Your task to perform on an android device: Set the phone to "Do not disturb". Image 0: 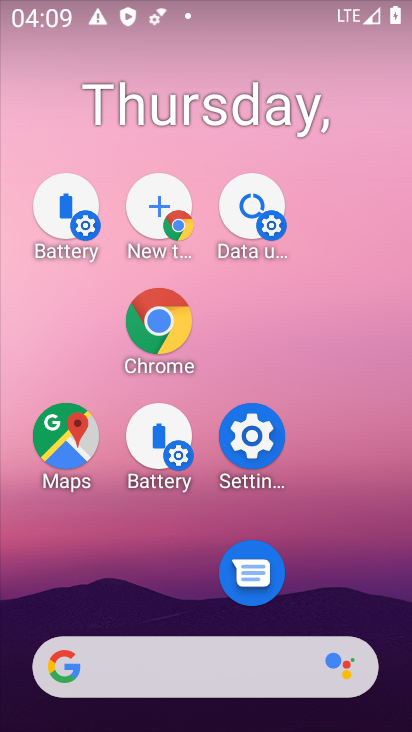
Step 0: press back button
Your task to perform on an android device: Set the phone to "Do not disturb". Image 1: 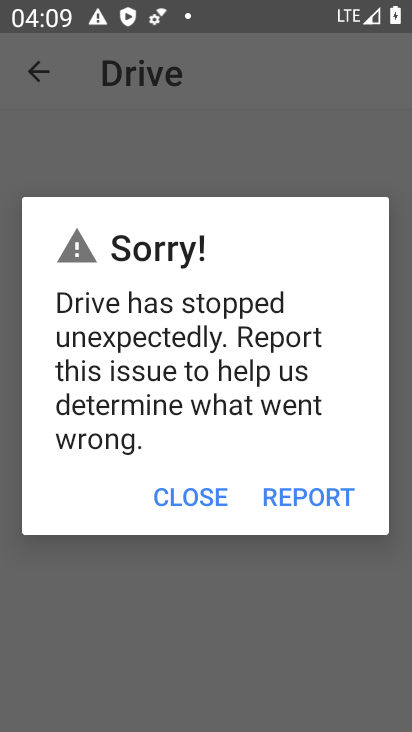
Step 1: press home button
Your task to perform on an android device: Set the phone to "Do not disturb". Image 2: 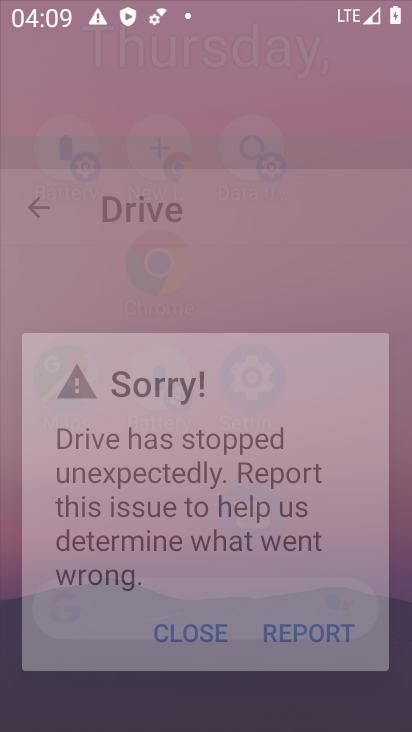
Step 2: click (185, 496)
Your task to perform on an android device: Set the phone to "Do not disturb". Image 3: 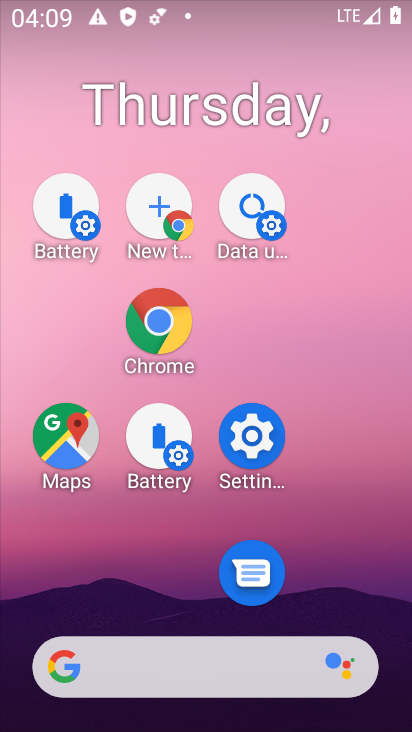
Step 3: drag from (244, 561) to (203, 69)
Your task to perform on an android device: Set the phone to "Do not disturb". Image 4: 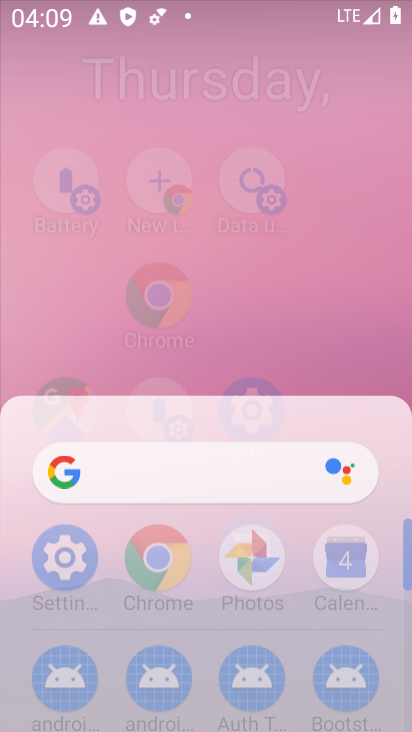
Step 4: drag from (229, 467) to (229, 103)
Your task to perform on an android device: Set the phone to "Do not disturb". Image 5: 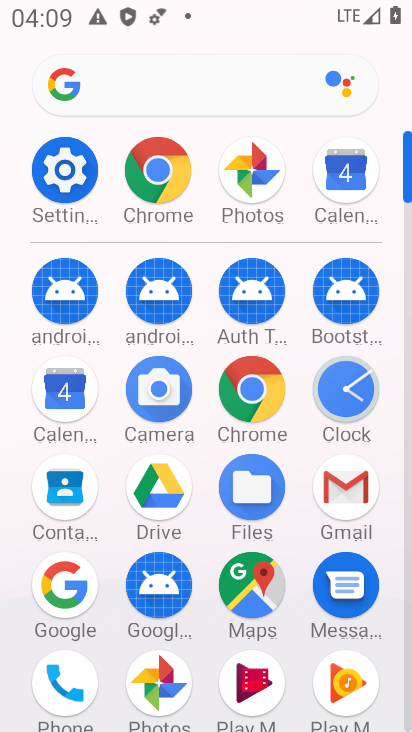
Step 5: drag from (306, 529) to (306, 168)
Your task to perform on an android device: Set the phone to "Do not disturb". Image 6: 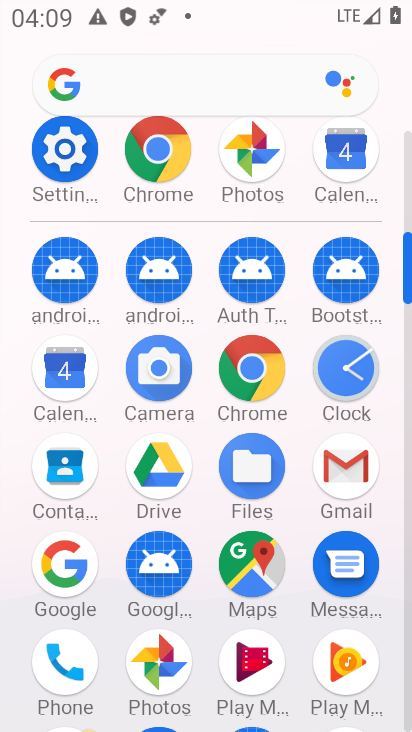
Step 6: click (60, 157)
Your task to perform on an android device: Set the phone to "Do not disturb". Image 7: 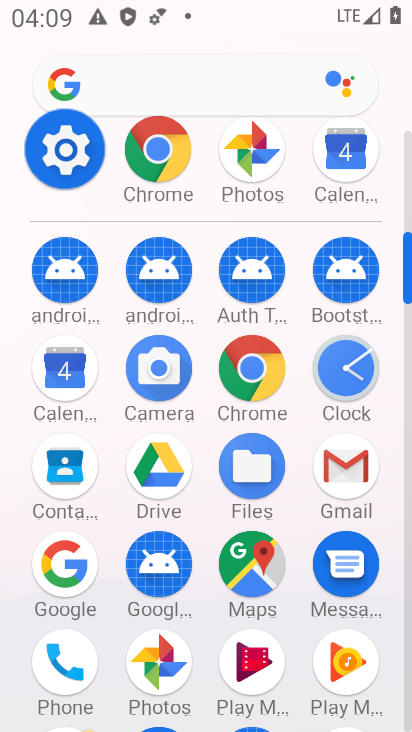
Step 7: click (60, 157)
Your task to perform on an android device: Set the phone to "Do not disturb". Image 8: 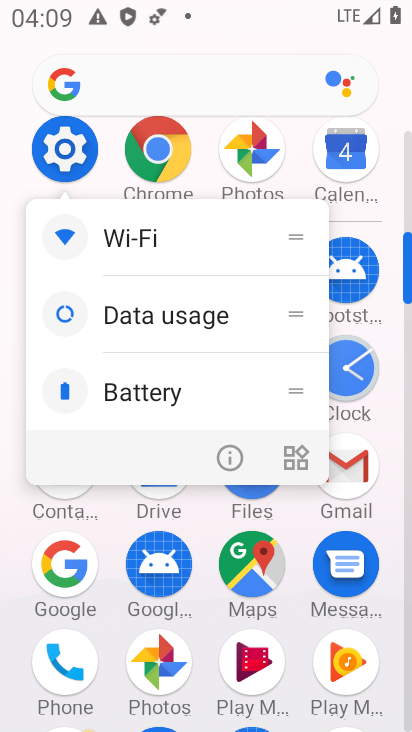
Step 8: click (62, 154)
Your task to perform on an android device: Set the phone to "Do not disturb". Image 9: 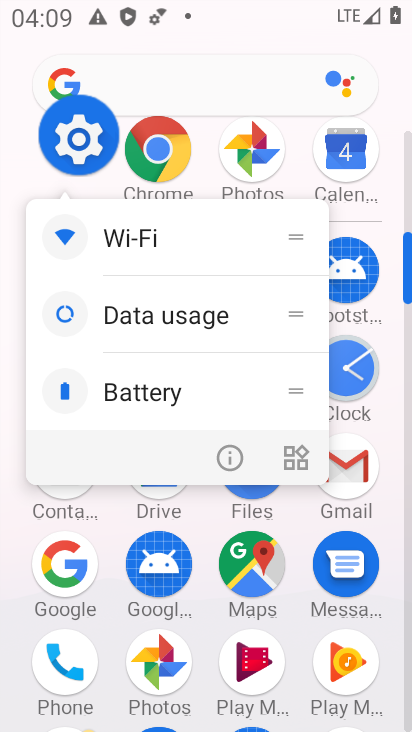
Step 9: click (70, 138)
Your task to perform on an android device: Set the phone to "Do not disturb". Image 10: 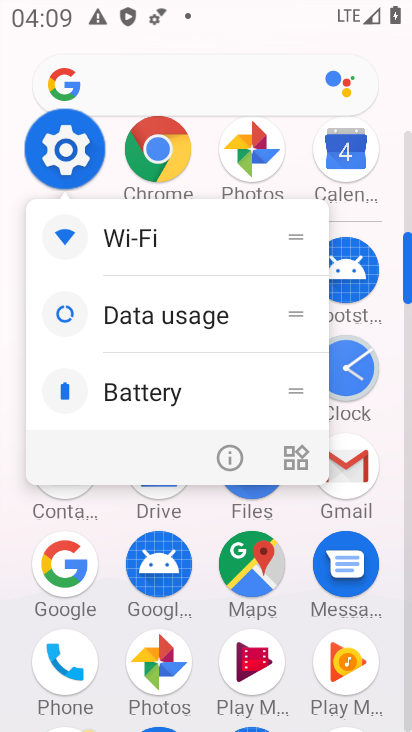
Step 10: click (70, 138)
Your task to perform on an android device: Set the phone to "Do not disturb". Image 11: 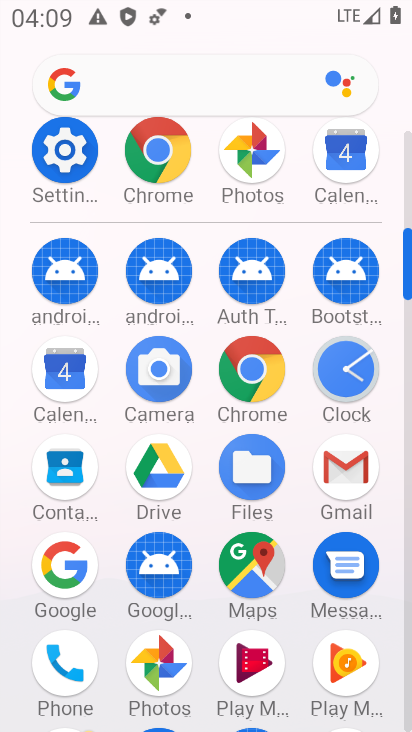
Step 11: click (67, 152)
Your task to perform on an android device: Set the phone to "Do not disturb". Image 12: 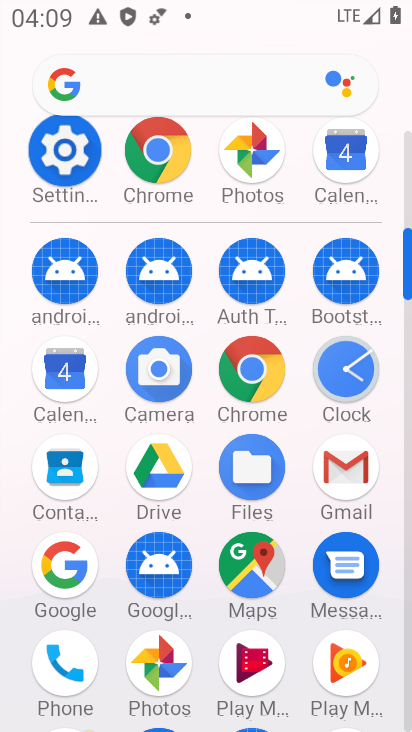
Step 12: click (61, 160)
Your task to perform on an android device: Set the phone to "Do not disturb". Image 13: 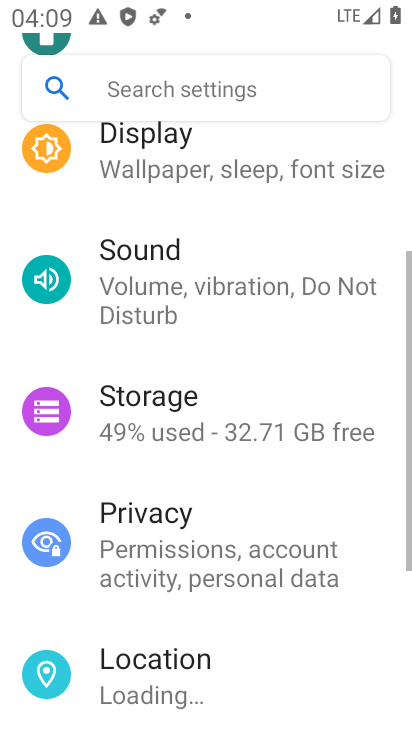
Step 13: click (60, 161)
Your task to perform on an android device: Set the phone to "Do not disturb". Image 14: 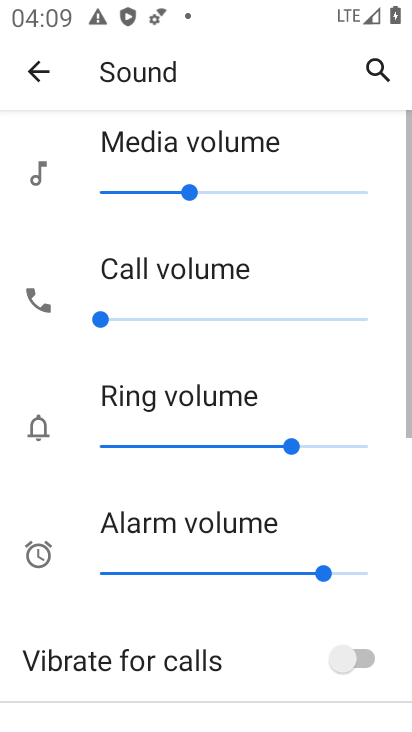
Step 14: click (33, 72)
Your task to perform on an android device: Set the phone to "Do not disturb". Image 15: 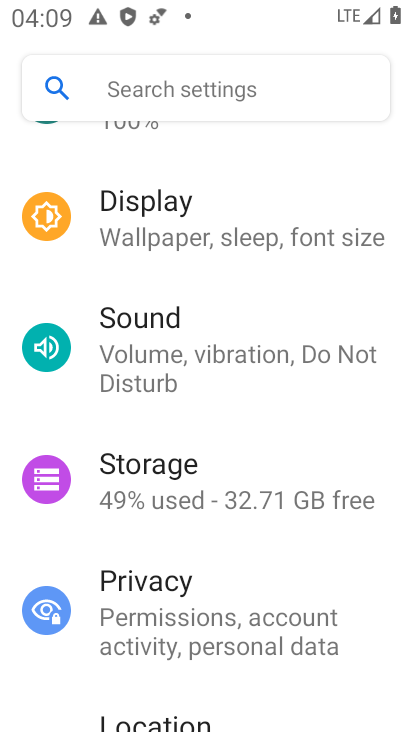
Step 15: click (135, 345)
Your task to perform on an android device: Set the phone to "Do not disturb". Image 16: 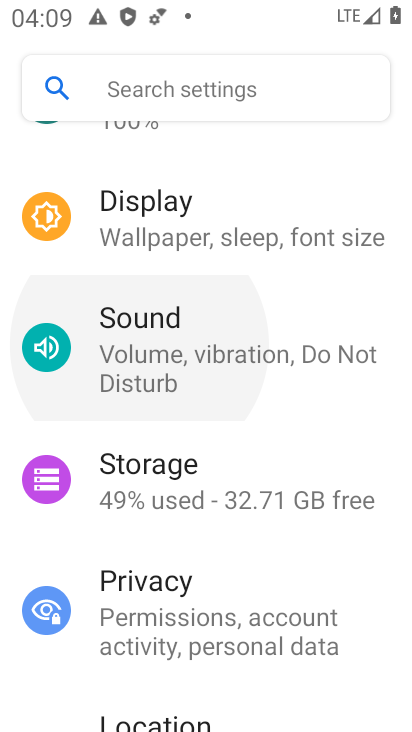
Step 16: click (143, 346)
Your task to perform on an android device: Set the phone to "Do not disturb". Image 17: 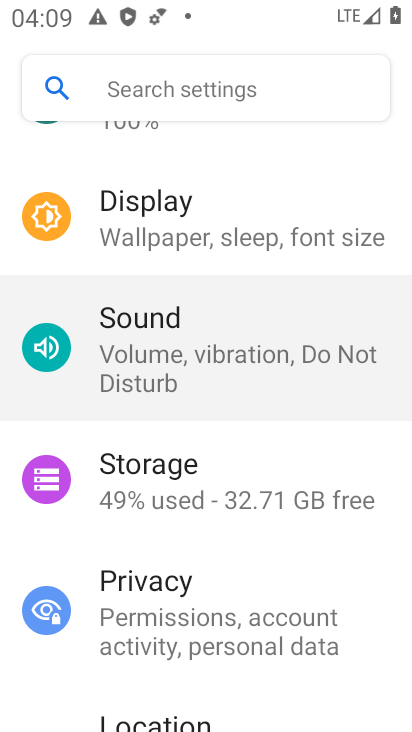
Step 17: click (143, 346)
Your task to perform on an android device: Set the phone to "Do not disturb". Image 18: 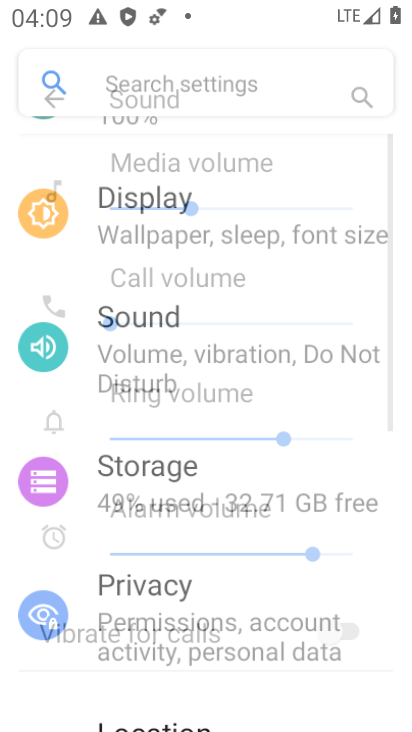
Step 18: click (146, 346)
Your task to perform on an android device: Set the phone to "Do not disturb". Image 19: 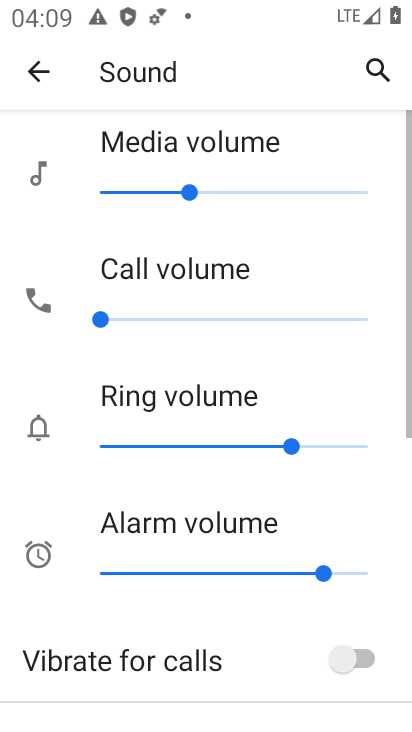
Step 19: click (146, 346)
Your task to perform on an android device: Set the phone to "Do not disturb". Image 20: 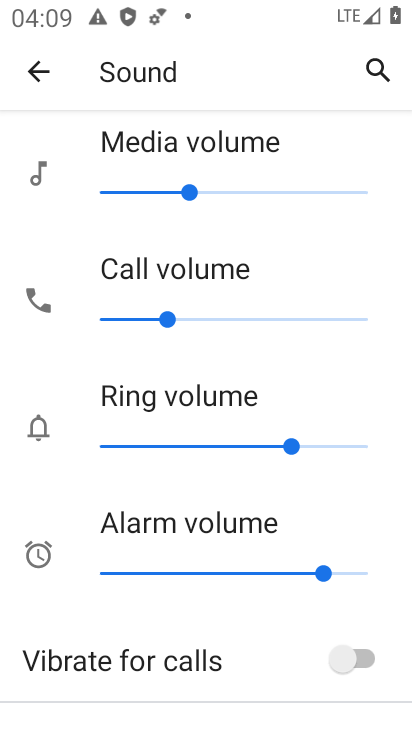
Step 20: task complete